Your task to perform on an android device: Turn on the flashlight Image 0: 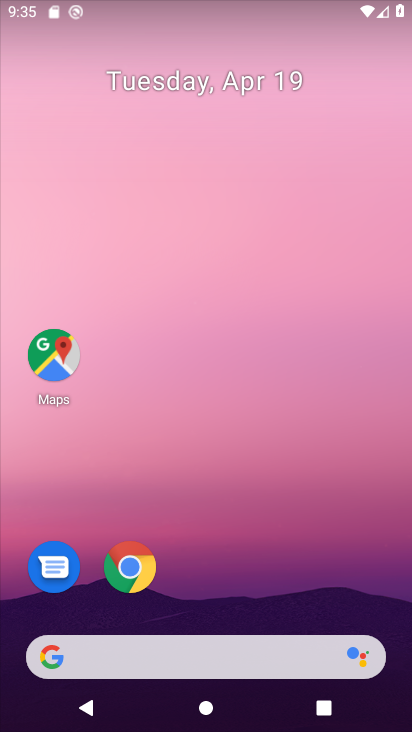
Step 0: click (305, 106)
Your task to perform on an android device: Turn on the flashlight Image 1: 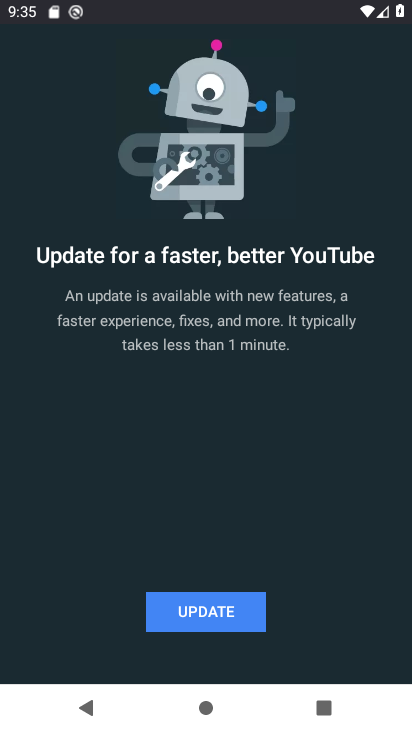
Step 1: press home button
Your task to perform on an android device: Turn on the flashlight Image 2: 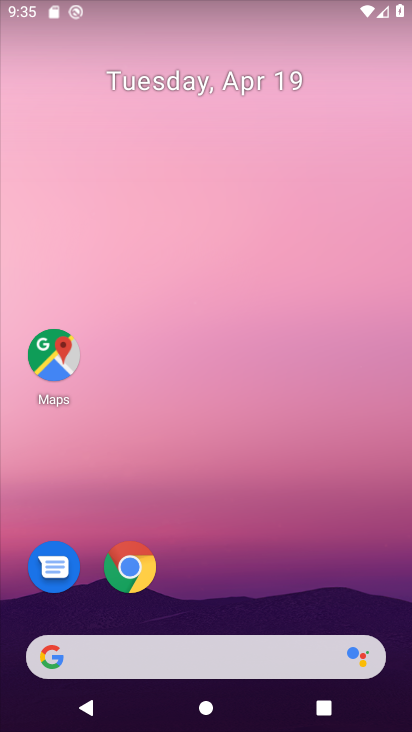
Step 2: drag from (259, 525) to (332, 78)
Your task to perform on an android device: Turn on the flashlight Image 3: 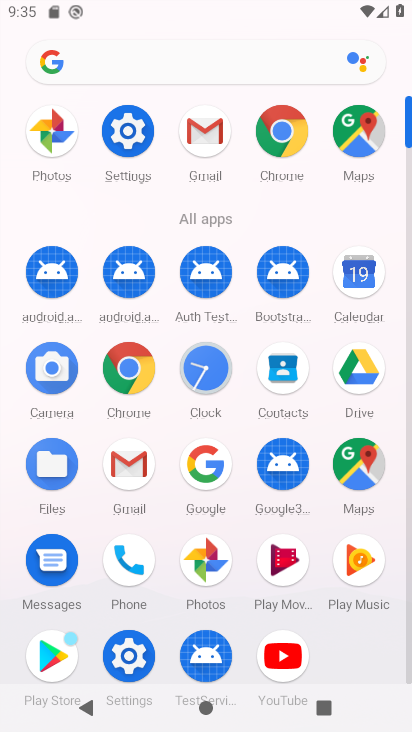
Step 3: click (123, 131)
Your task to perform on an android device: Turn on the flashlight Image 4: 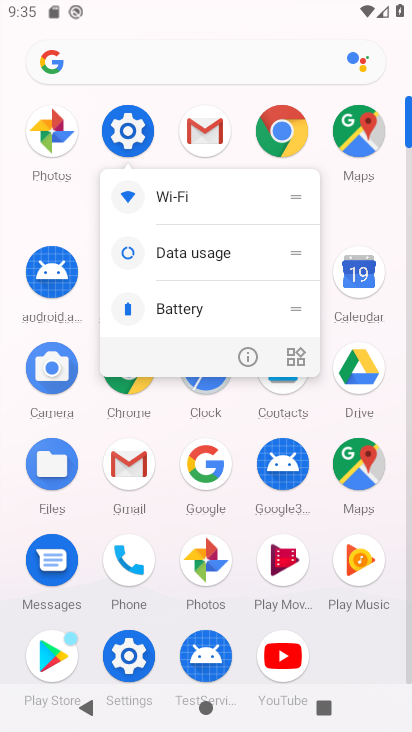
Step 4: click (123, 131)
Your task to perform on an android device: Turn on the flashlight Image 5: 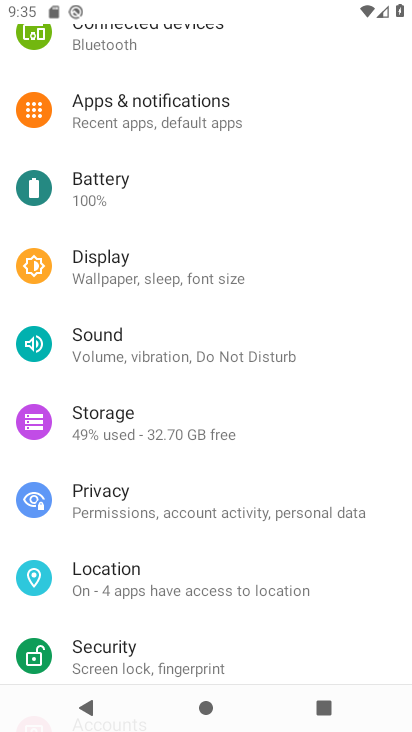
Step 5: task complete